Your task to perform on an android device: Go to wifi settings Image 0: 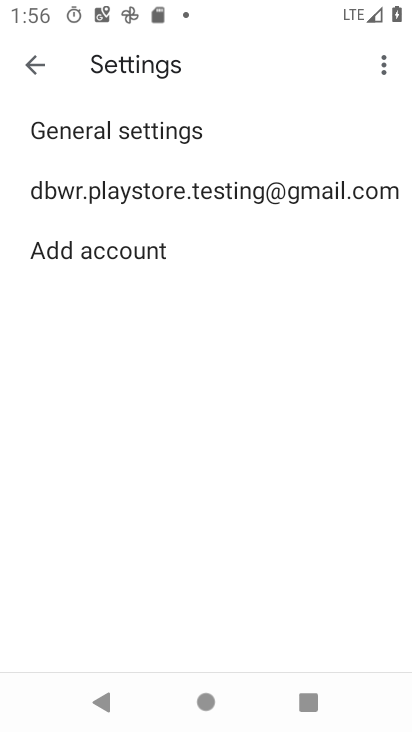
Step 0: press home button
Your task to perform on an android device: Go to wifi settings Image 1: 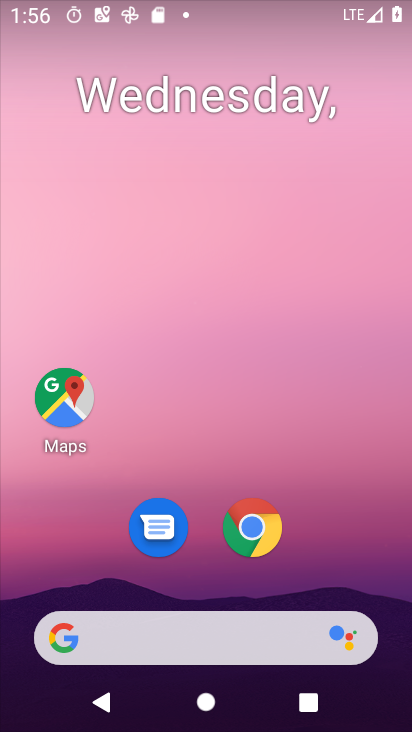
Step 1: drag from (328, 606) to (393, 3)
Your task to perform on an android device: Go to wifi settings Image 2: 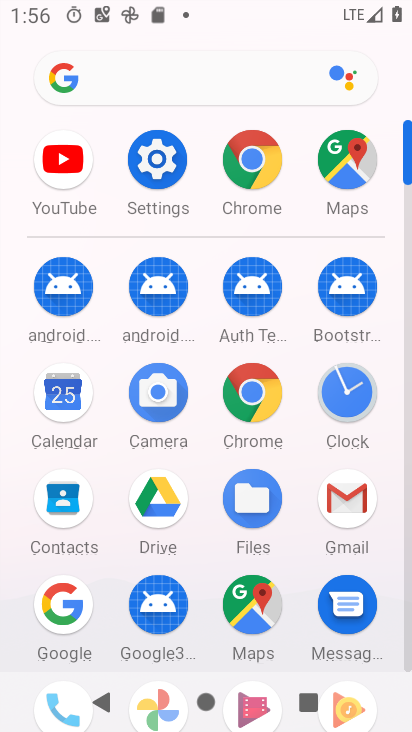
Step 2: drag from (309, 637) to (348, 248)
Your task to perform on an android device: Go to wifi settings Image 3: 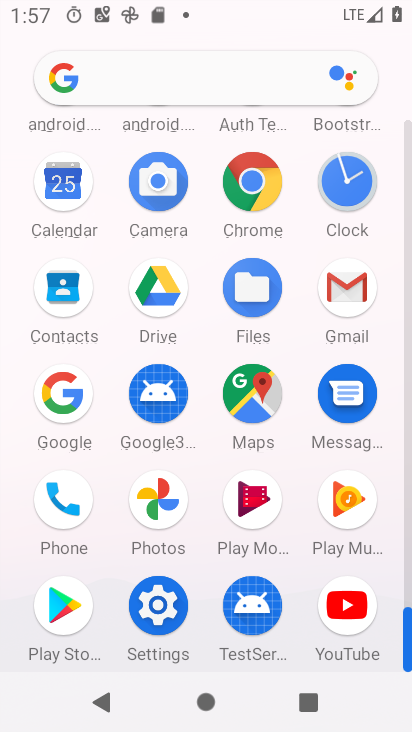
Step 3: click (164, 611)
Your task to perform on an android device: Go to wifi settings Image 4: 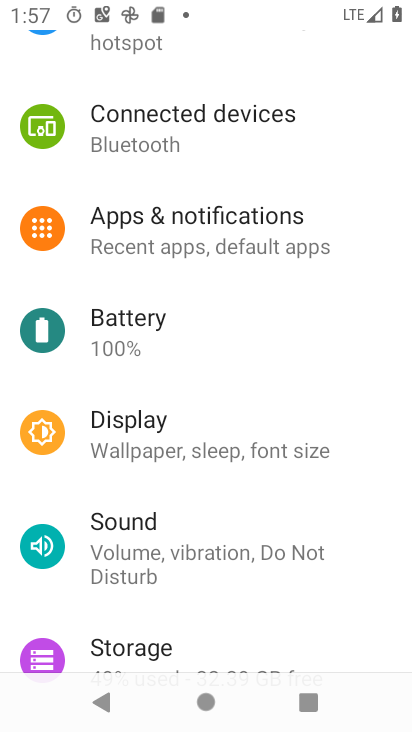
Step 4: drag from (278, 170) to (244, 699)
Your task to perform on an android device: Go to wifi settings Image 5: 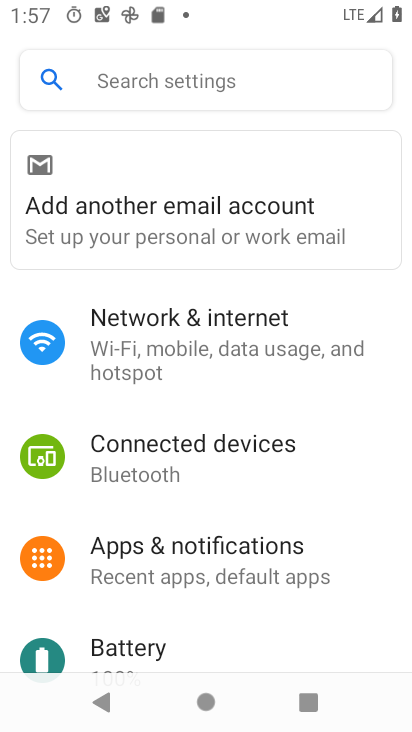
Step 5: click (243, 371)
Your task to perform on an android device: Go to wifi settings Image 6: 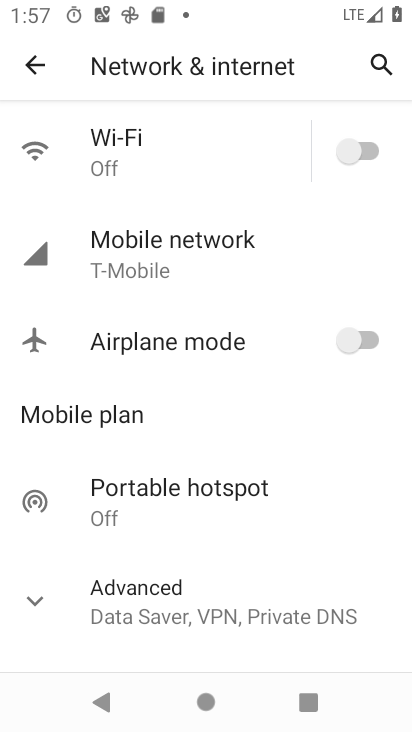
Step 6: click (198, 146)
Your task to perform on an android device: Go to wifi settings Image 7: 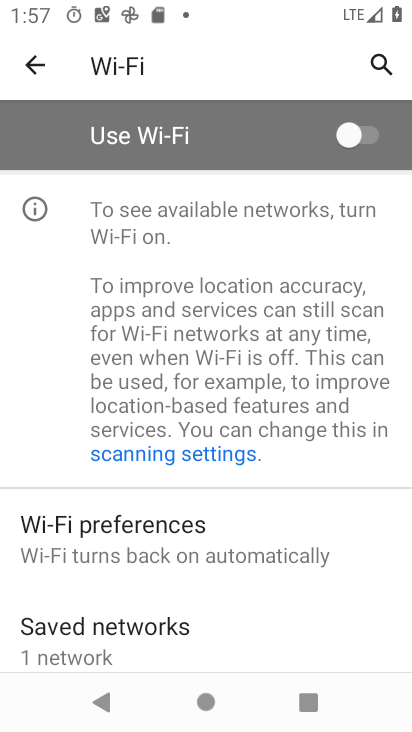
Step 7: task complete